Your task to perform on an android device: Go to Wikipedia Image 0: 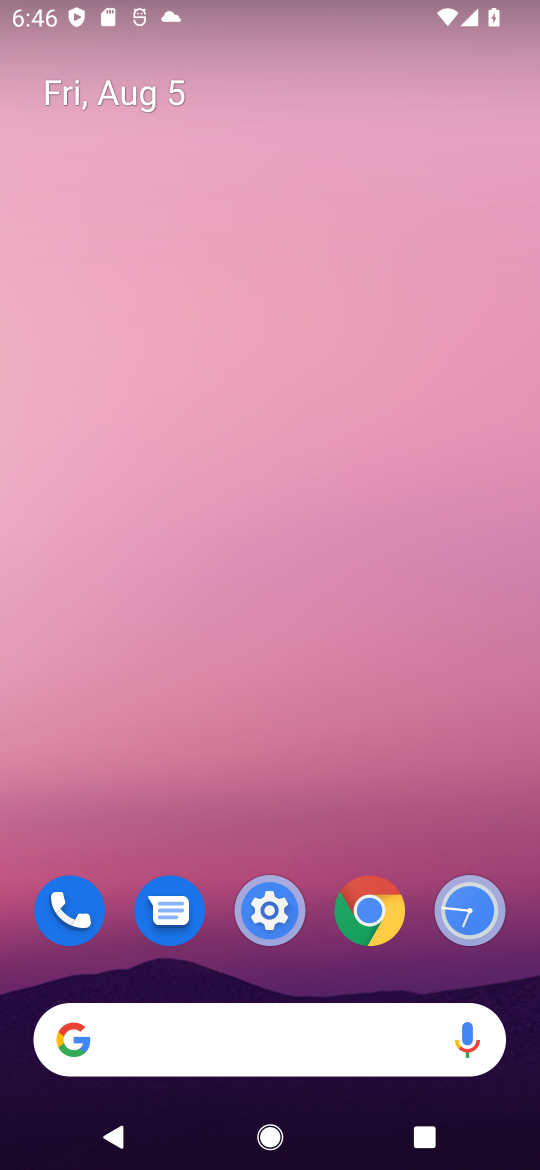
Step 0: drag from (188, 1034) to (355, 81)
Your task to perform on an android device: Go to Wikipedia Image 1: 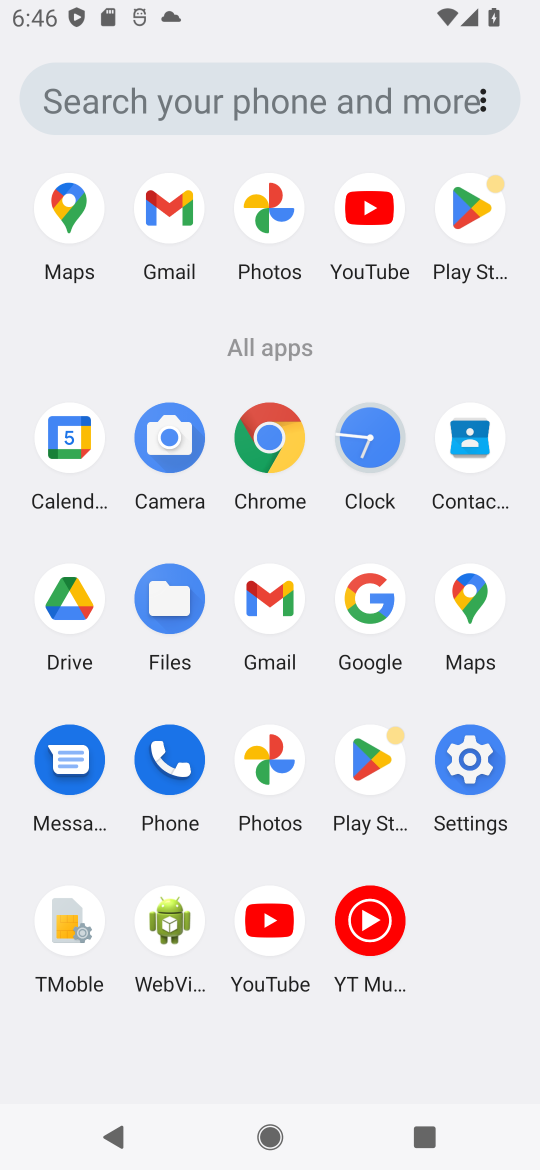
Step 1: click (269, 471)
Your task to perform on an android device: Go to Wikipedia Image 2: 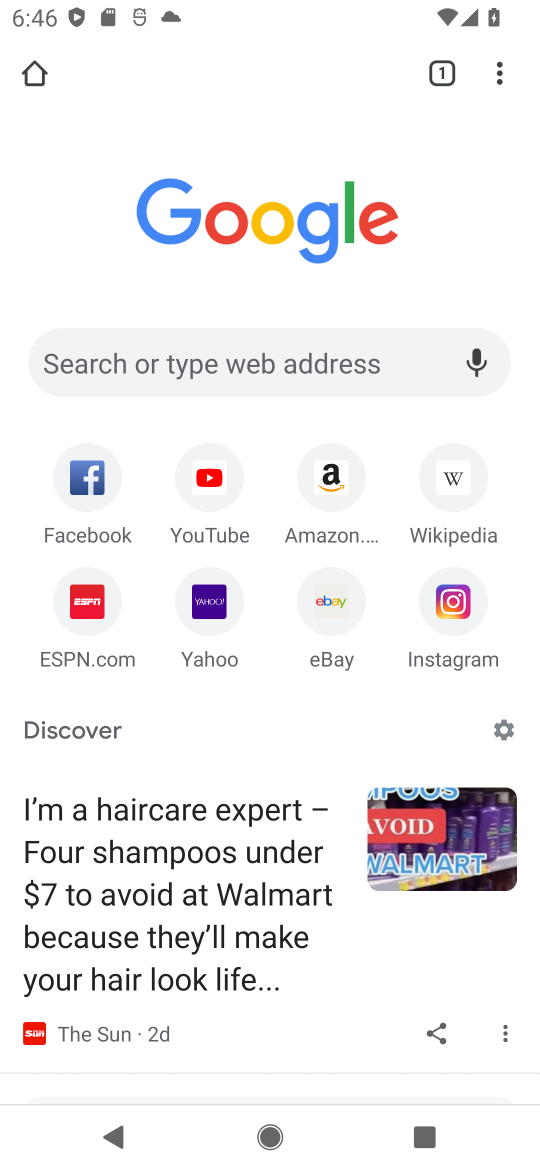
Step 2: click (447, 480)
Your task to perform on an android device: Go to Wikipedia Image 3: 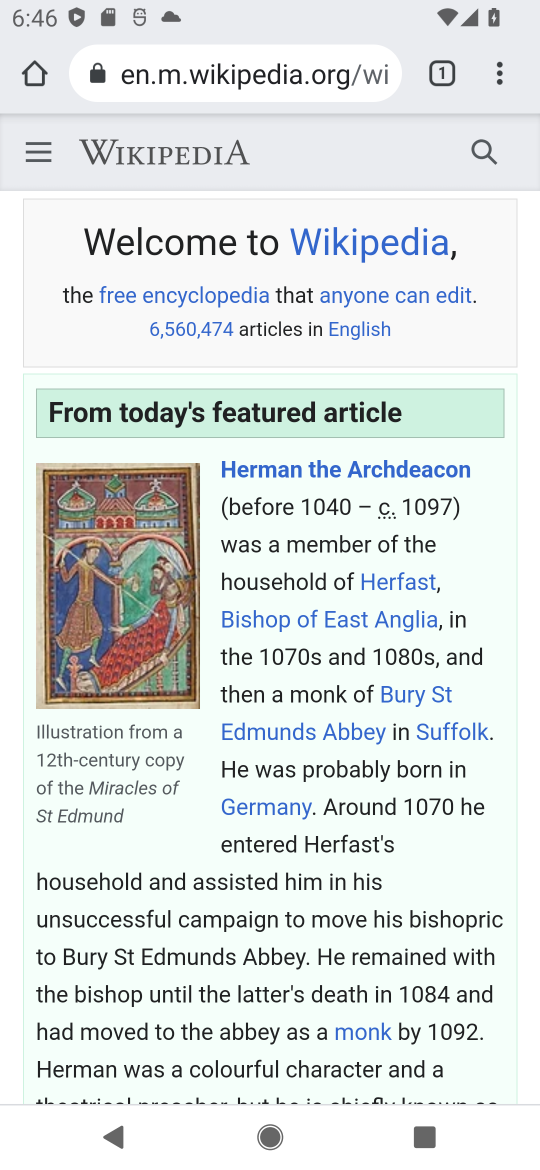
Step 3: task complete